Your task to perform on an android device: Go to wifi settings Image 0: 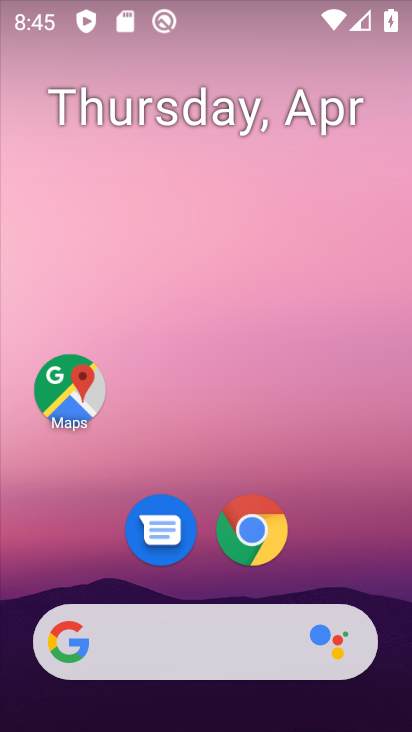
Step 0: drag from (356, 568) to (241, 30)
Your task to perform on an android device: Go to wifi settings Image 1: 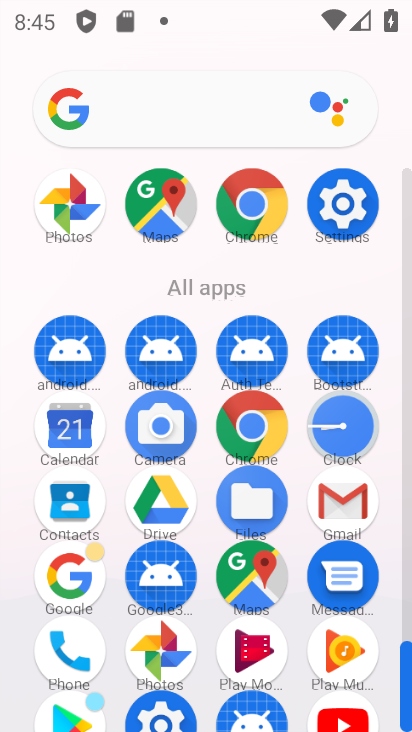
Step 1: click (331, 204)
Your task to perform on an android device: Go to wifi settings Image 2: 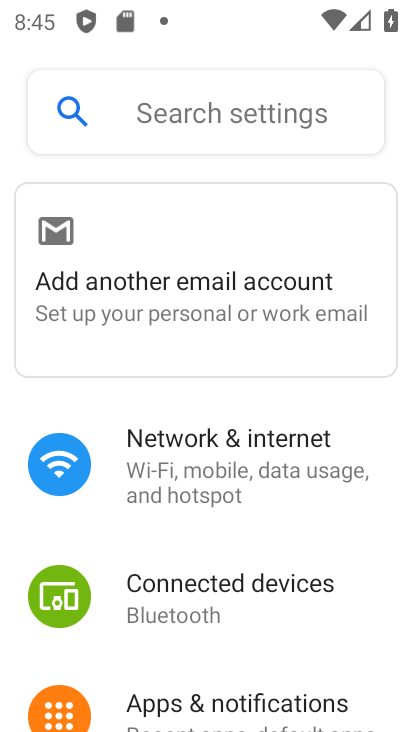
Step 2: click (194, 492)
Your task to perform on an android device: Go to wifi settings Image 3: 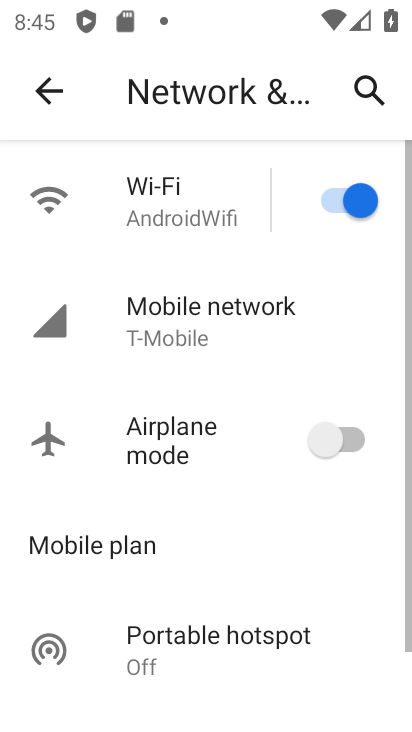
Step 3: click (135, 198)
Your task to perform on an android device: Go to wifi settings Image 4: 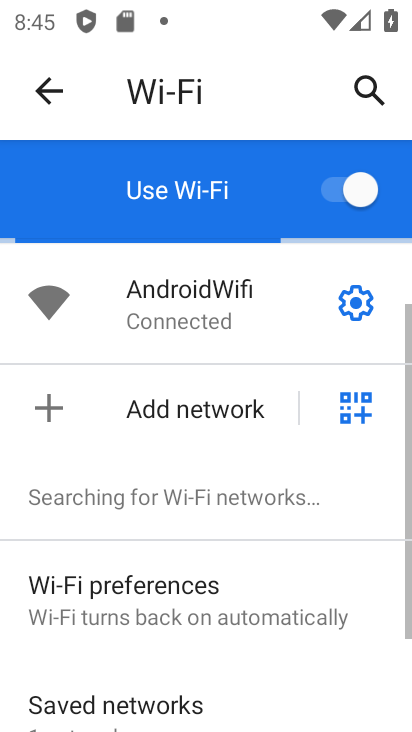
Step 4: task complete